Your task to perform on an android device: Open Reddit.com Image 0: 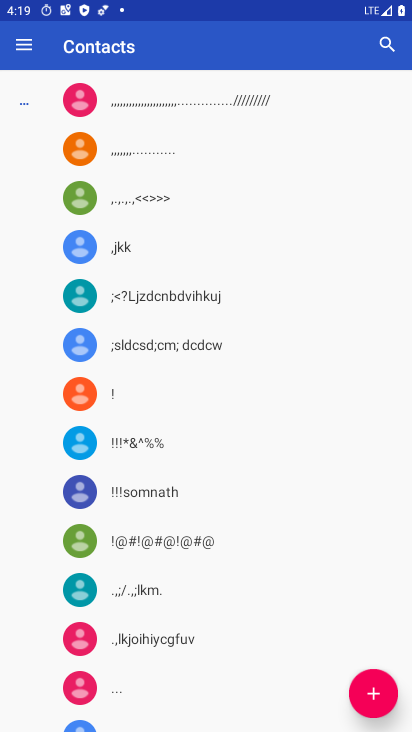
Step 0: press home button
Your task to perform on an android device: Open Reddit.com Image 1: 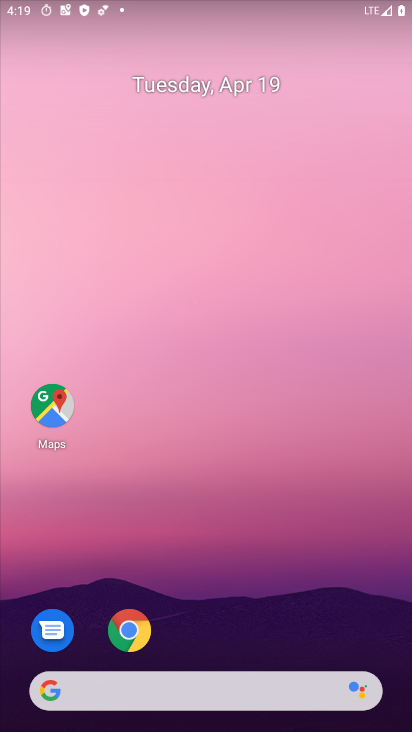
Step 1: click (184, 677)
Your task to perform on an android device: Open Reddit.com Image 2: 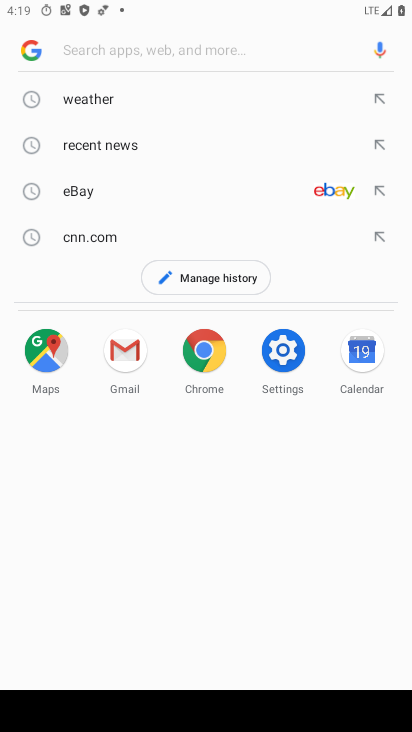
Step 2: type "Reddit.com"
Your task to perform on an android device: Open Reddit.com Image 3: 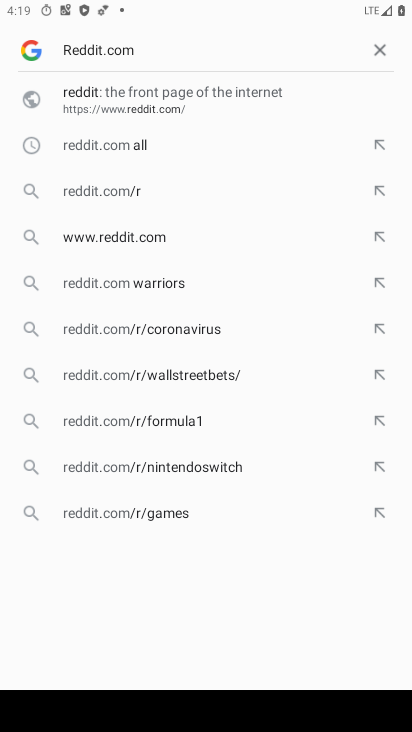
Step 3: click (136, 244)
Your task to perform on an android device: Open Reddit.com Image 4: 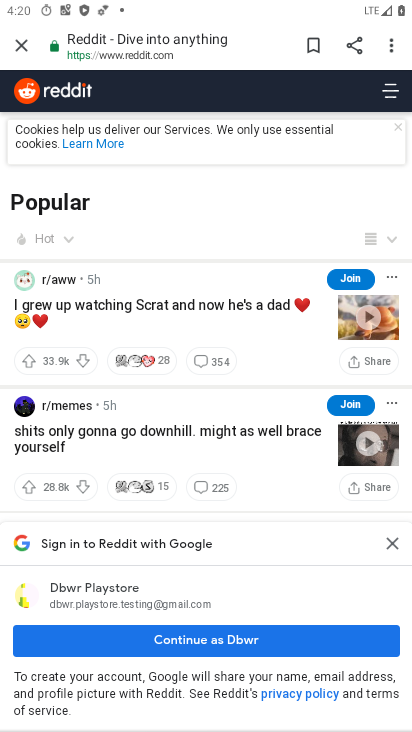
Step 4: task complete